Your task to perform on an android device: Search for vegetarian restaurants on Maps Image 0: 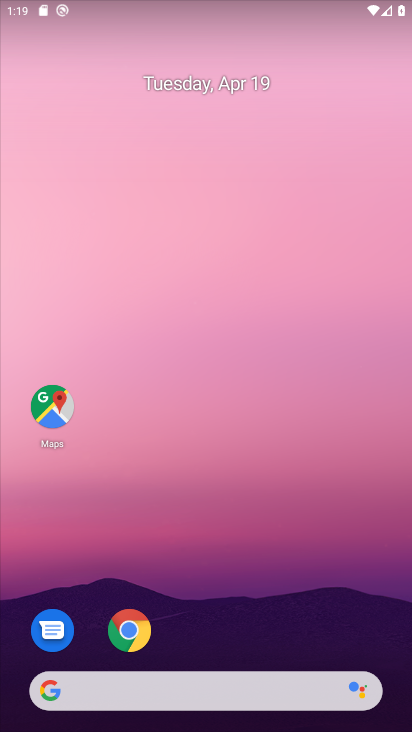
Step 0: drag from (206, 629) to (294, 0)
Your task to perform on an android device: Search for vegetarian restaurants on Maps Image 1: 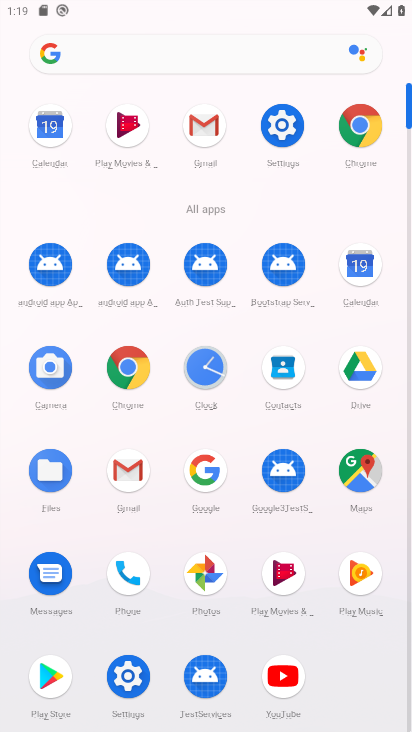
Step 1: click (355, 472)
Your task to perform on an android device: Search for vegetarian restaurants on Maps Image 2: 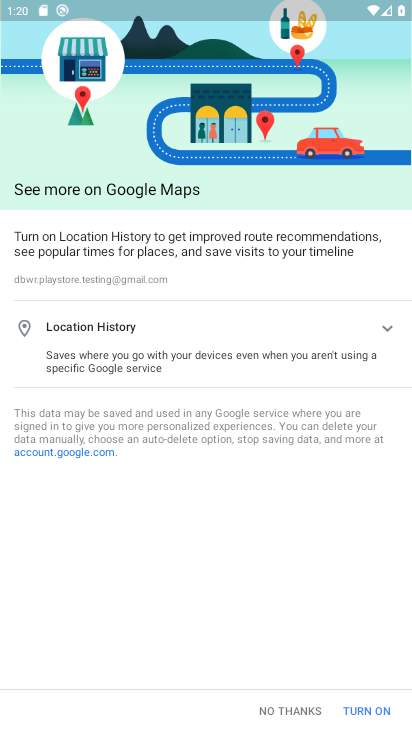
Step 2: click (263, 704)
Your task to perform on an android device: Search for vegetarian restaurants on Maps Image 3: 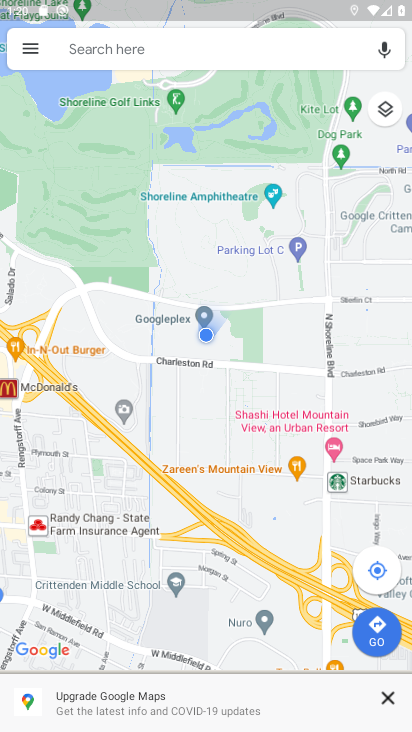
Step 3: click (259, 49)
Your task to perform on an android device: Search for vegetarian restaurants on Maps Image 4: 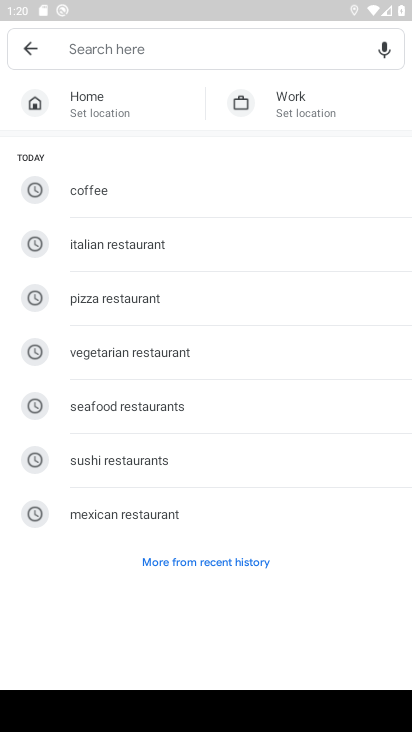
Step 4: type "vegetarian restaurants"
Your task to perform on an android device: Search for vegetarian restaurants on Maps Image 5: 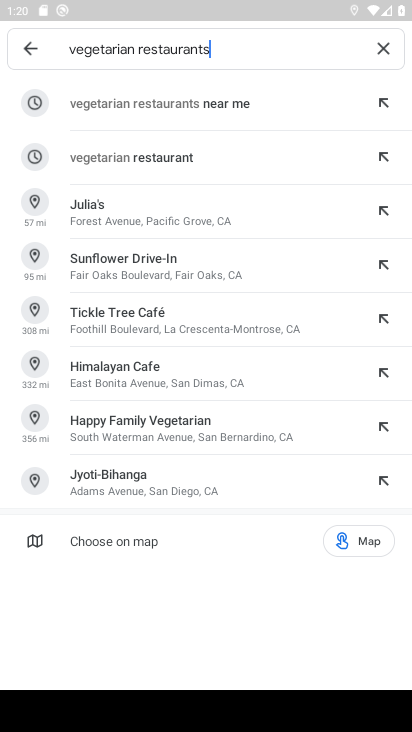
Step 5: click (81, 160)
Your task to perform on an android device: Search for vegetarian restaurants on Maps Image 6: 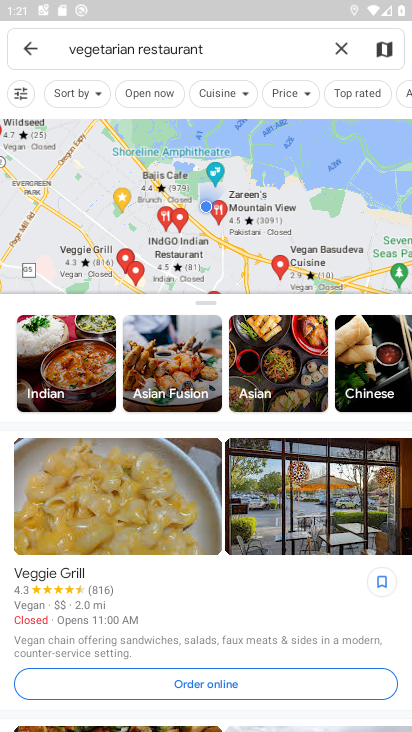
Step 6: task complete